Your task to perform on an android device: Add panasonic triple a to the cart on costco.com Image 0: 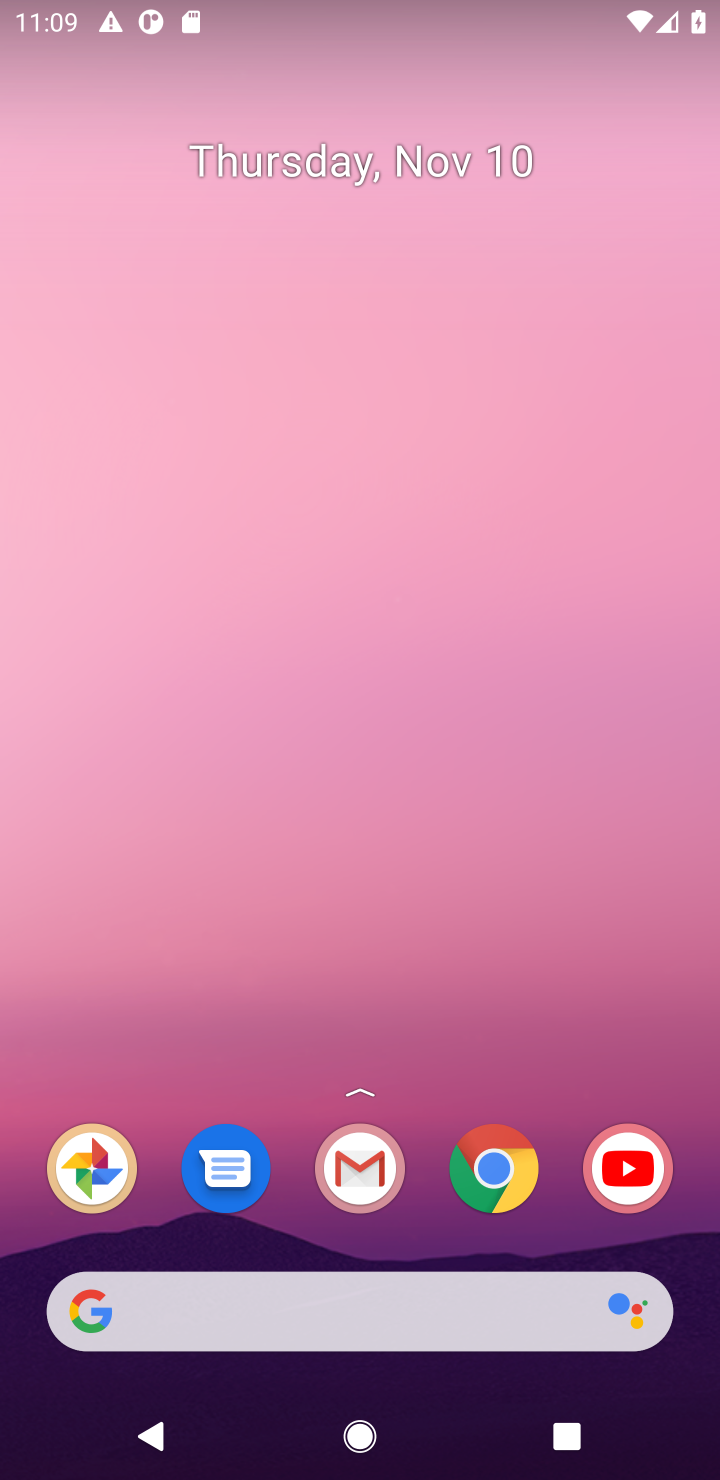
Step 0: click (505, 1181)
Your task to perform on an android device: Add panasonic triple a to the cart on costco.com Image 1: 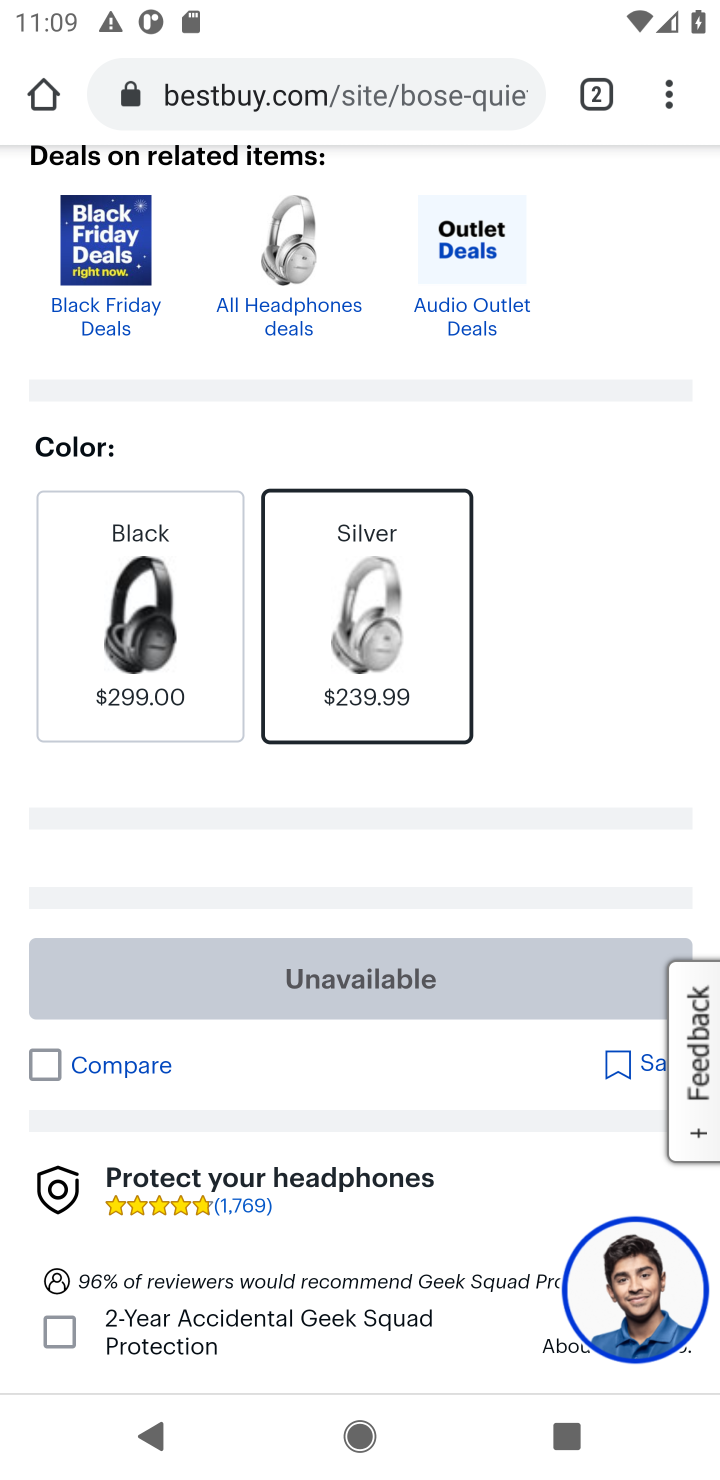
Step 1: click (245, 105)
Your task to perform on an android device: Add panasonic triple a to the cart on costco.com Image 2: 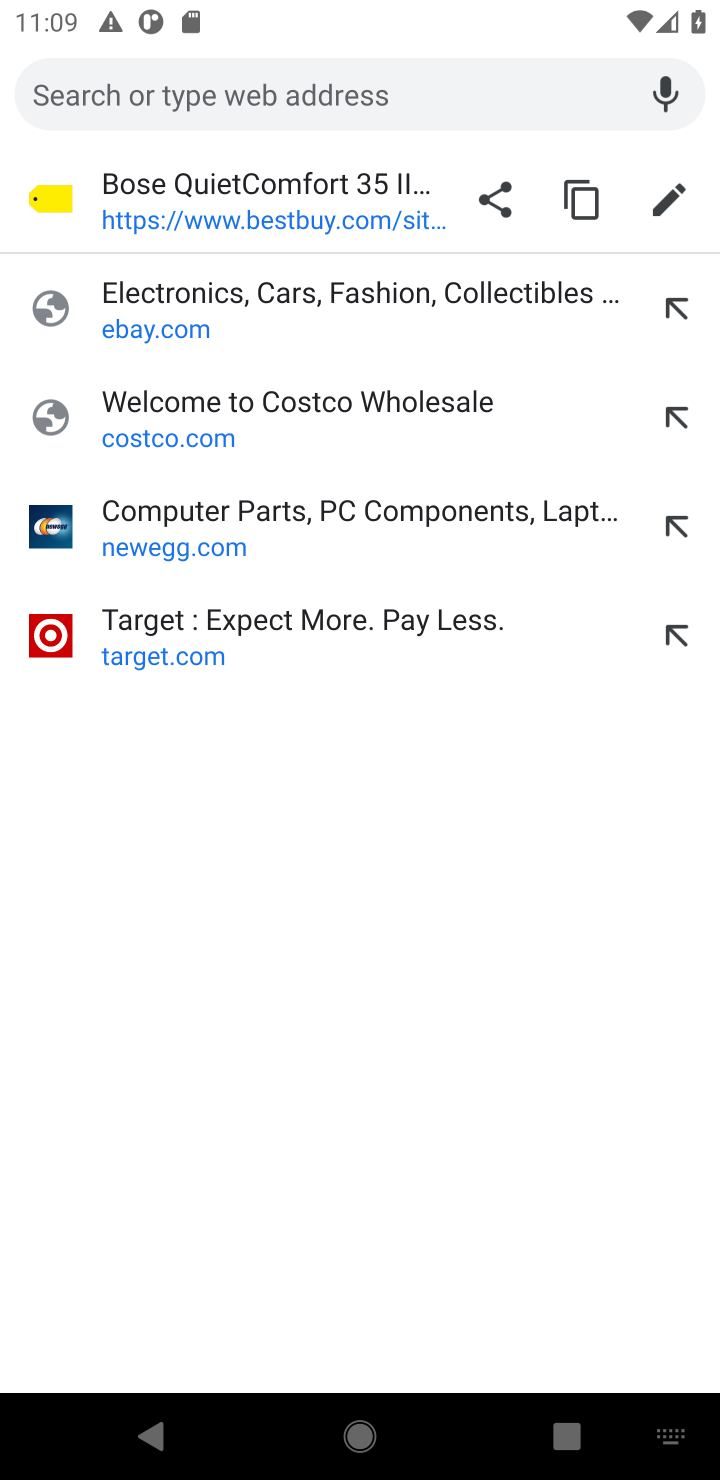
Step 2: click (130, 435)
Your task to perform on an android device: Add panasonic triple a to the cart on costco.com Image 3: 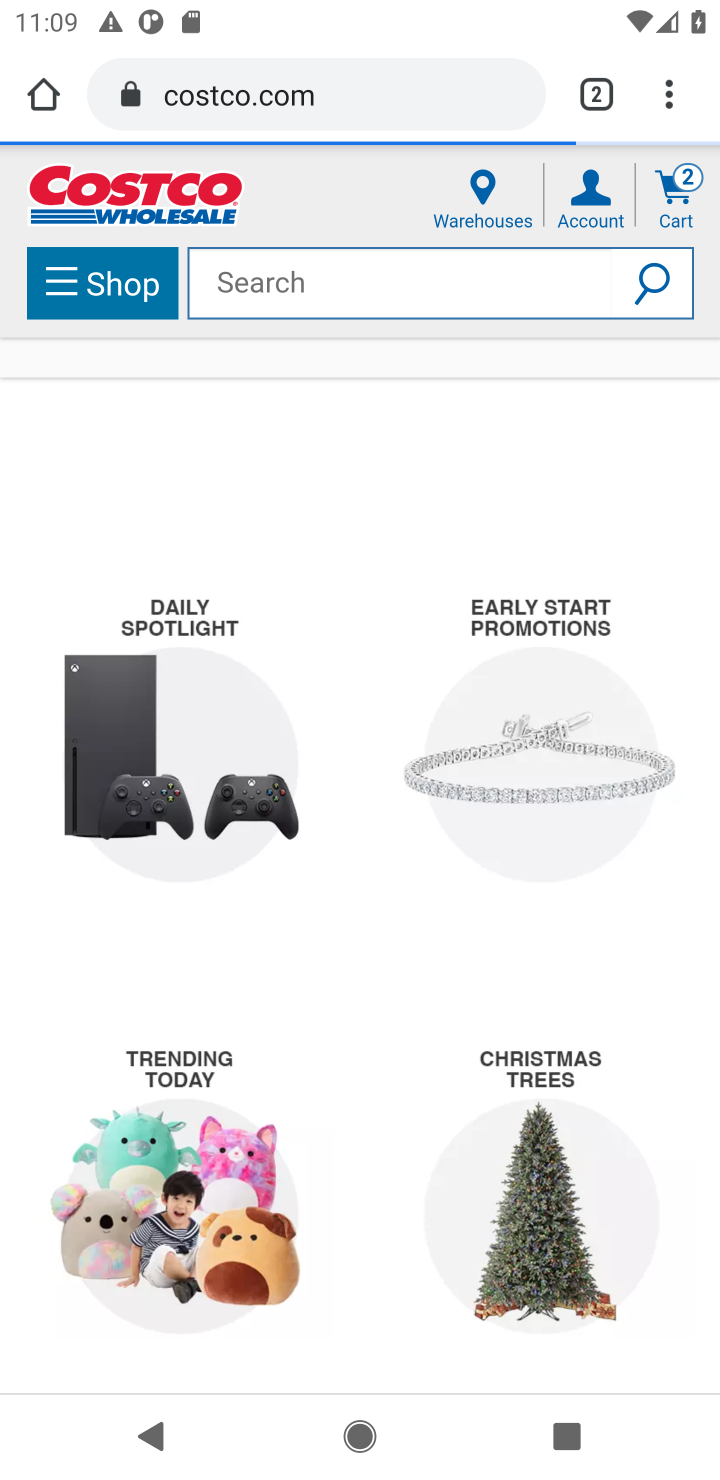
Step 3: click (335, 304)
Your task to perform on an android device: Add panasonic triple a to the cart on costco.com Image 4: 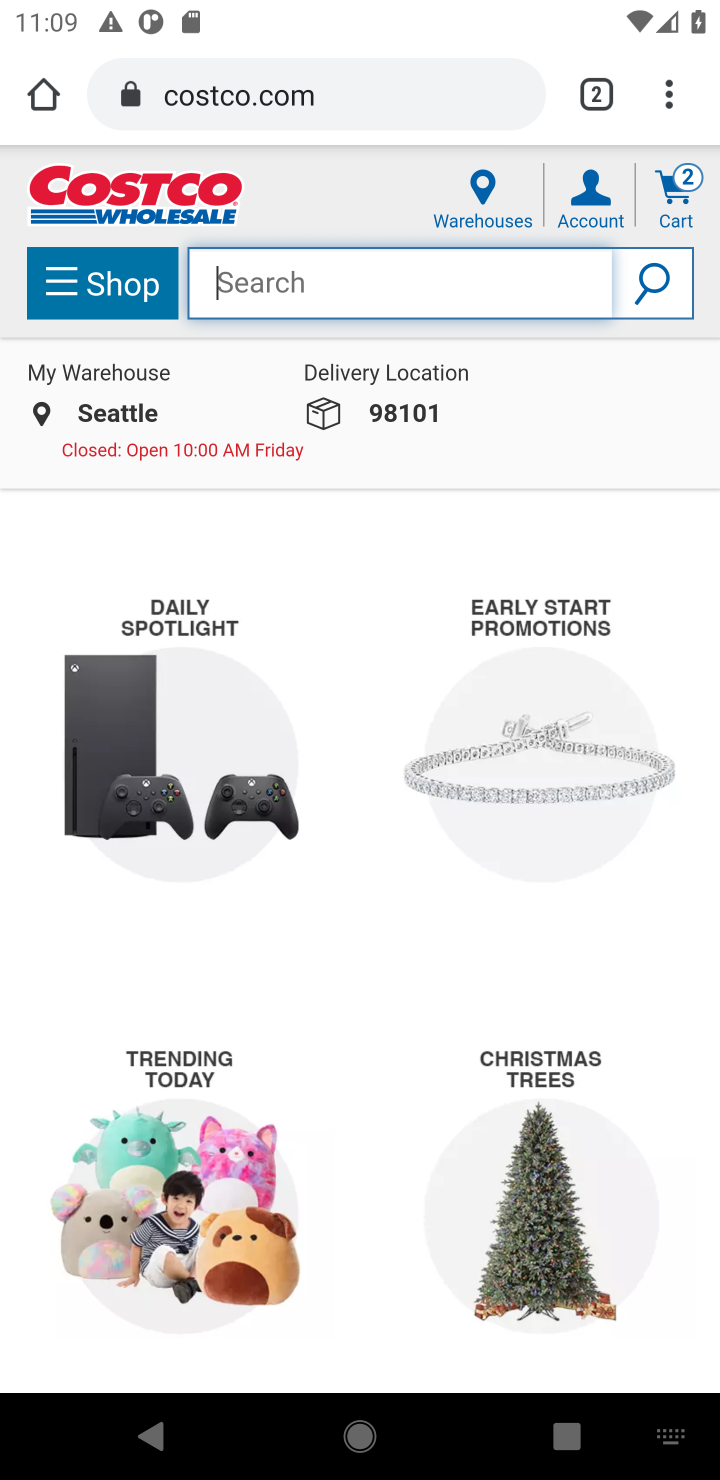
Step 4: type "panasonic triple a"
Your task to perform on an android device: Add panasonic triple a to the cart on costco.com Image 5: 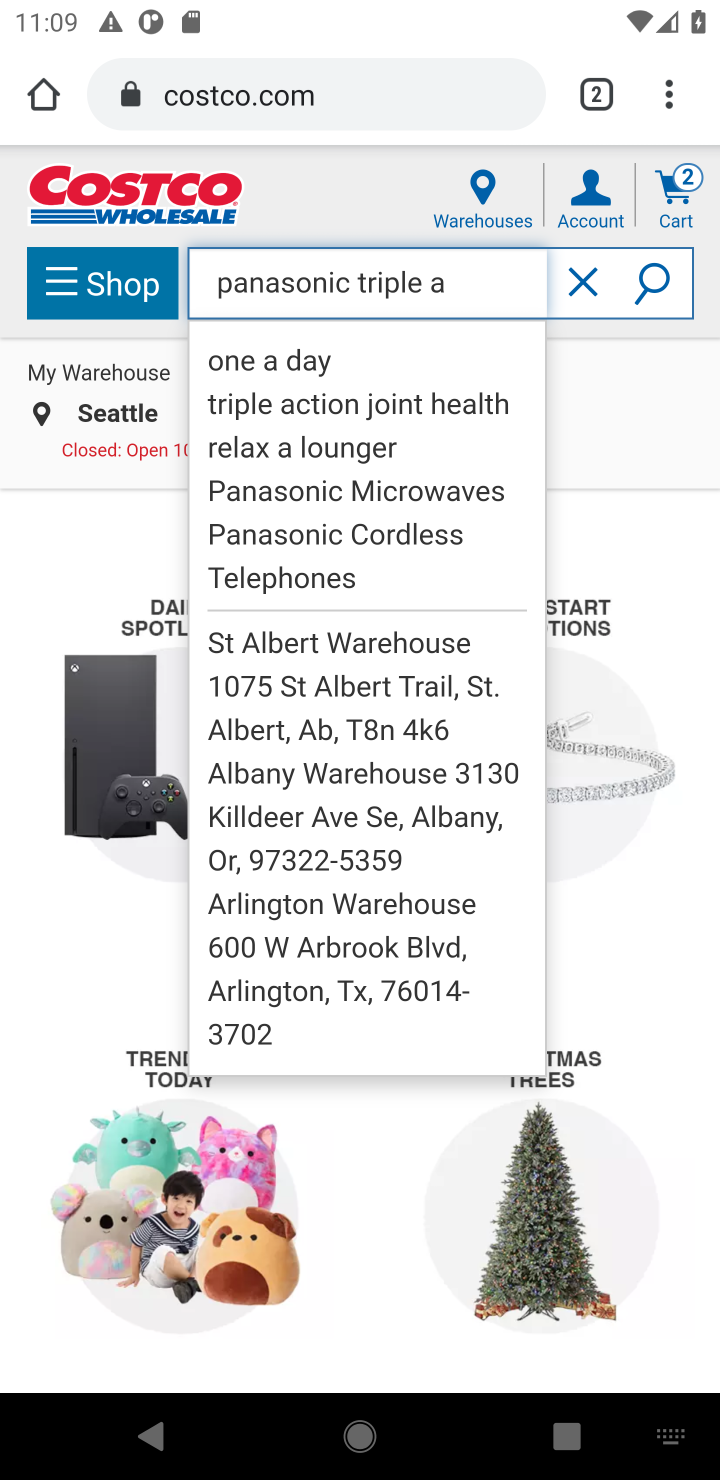
Step 5: click (648, 295)
Your task to perform on an android device: Add panasonic triple a to the cart on costco.com Image 6: 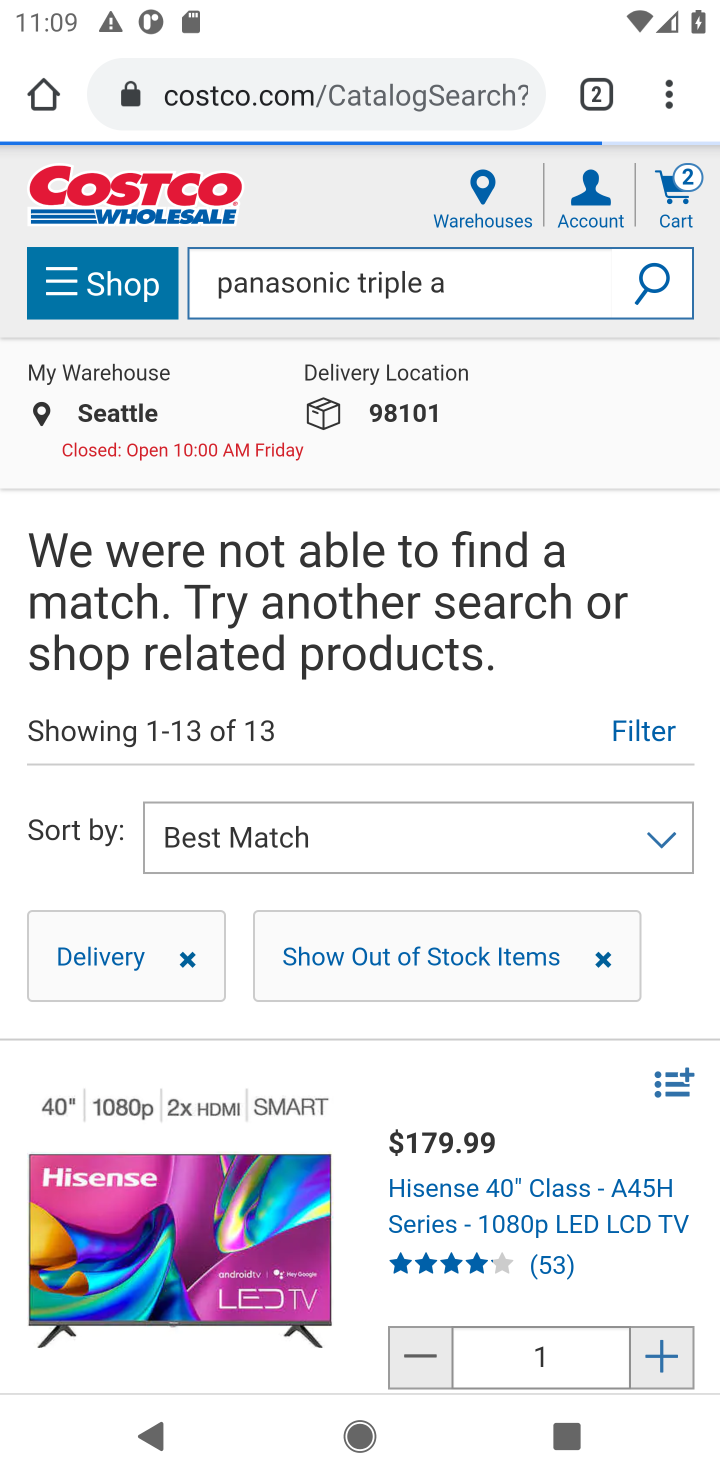
Step 6: task complete